Your task to perform on an android device: Go to display settings Image 0: 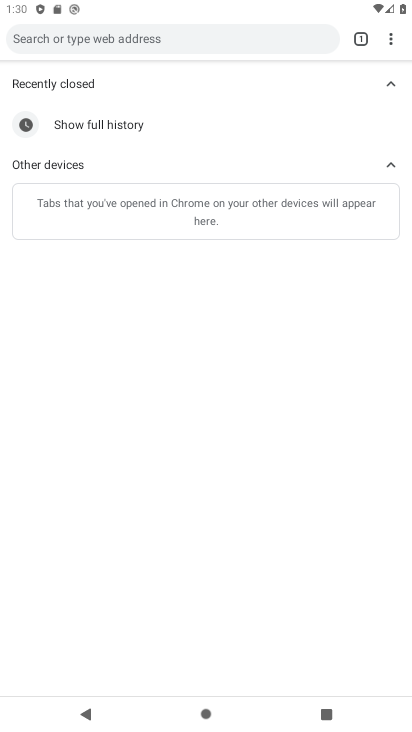
Step 0: press home button
Your task to perform on an android device: Go to display settings Image 1: 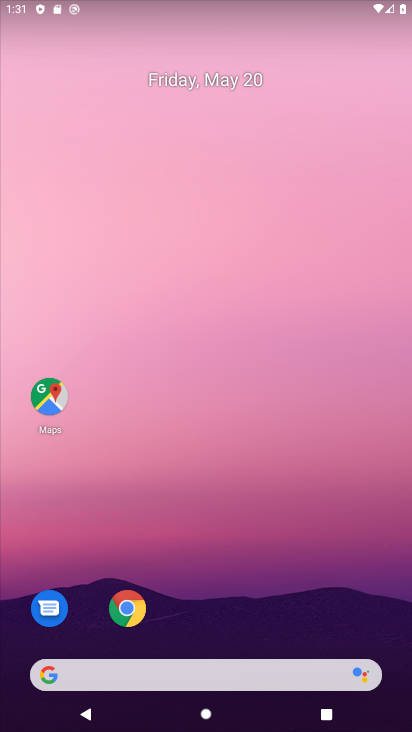
Step 1: drag from (284, 394) to (284, 144)
Your task to perform on an android device: Go to display settings Image 2: 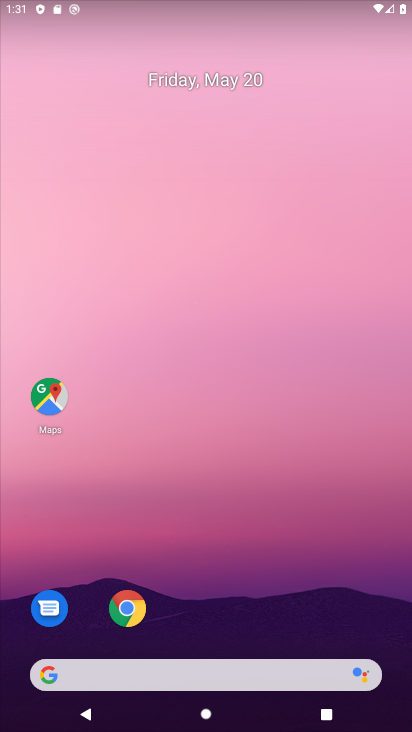
Step 2: drag from (300, 511) to (311, 107)
Your task to perform on an android device: Go to display settings Image 3: 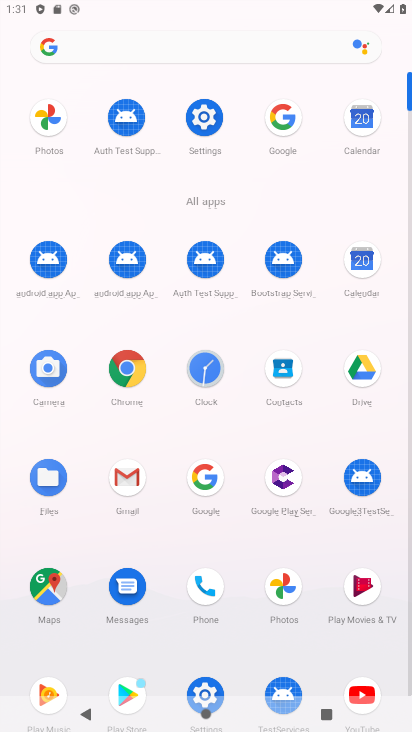
Step 3: click (206, 121)
Your task to perform on an android device: Go to display settings Image 4: 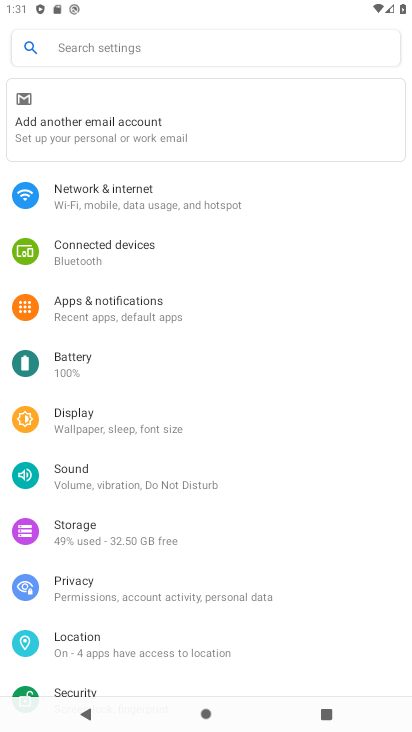
Step 4: click (119, 424)
Your task to perform on an android device: Go to display settings Image 5: 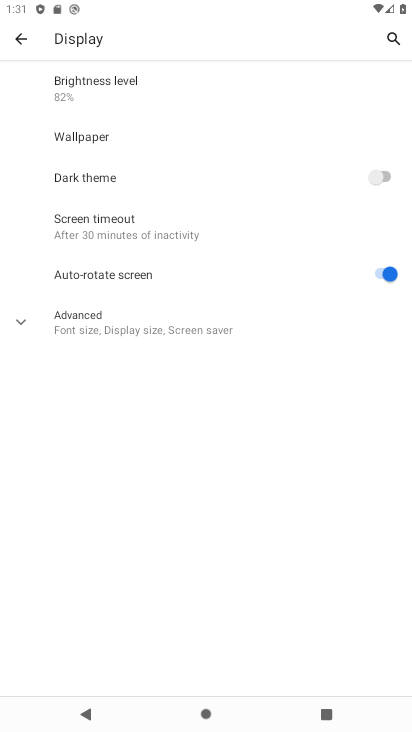
Step 5: task complete